Your task to perform on an android device: move an email to a new category in the gmail app Image 0: 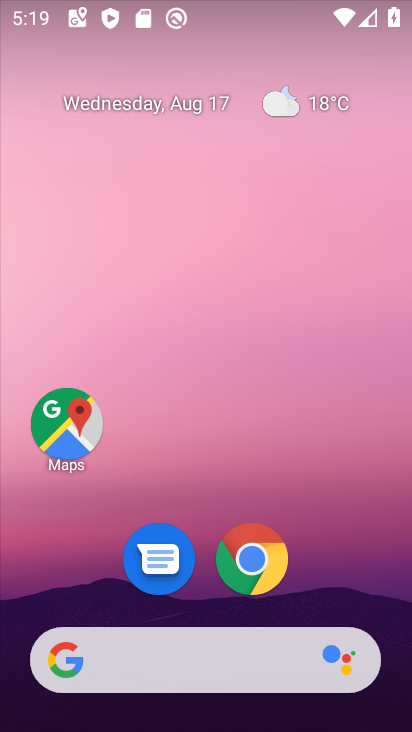
Step 0: drag from (181, 656) to (175, 118)
Your task to perform on an android device: move an email to a new category in the gmail app Image 1: 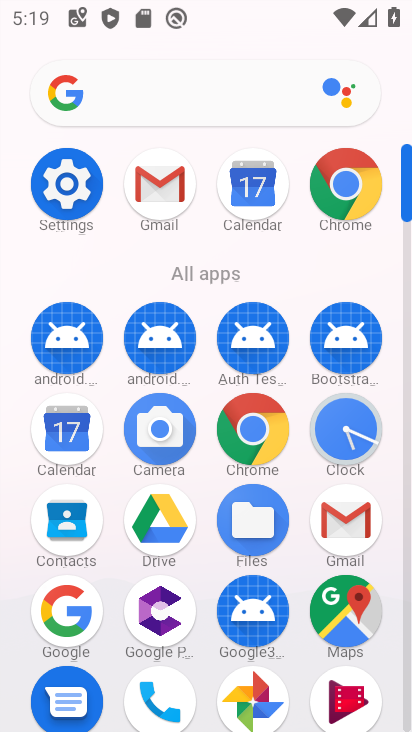
Step 1: click (338, 533)
Your task to perform on an android device: move an email to a new category in the gmail app Image 2: 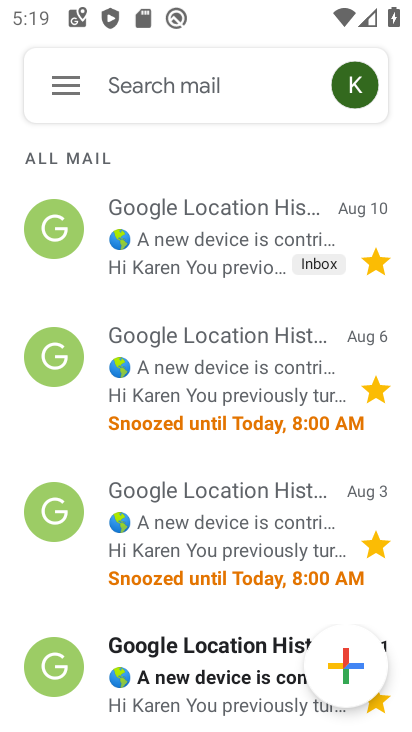
Step 2: click (390, 533)
Your task to perform on an android device: move an email to a new category in the gmail app Image 3: 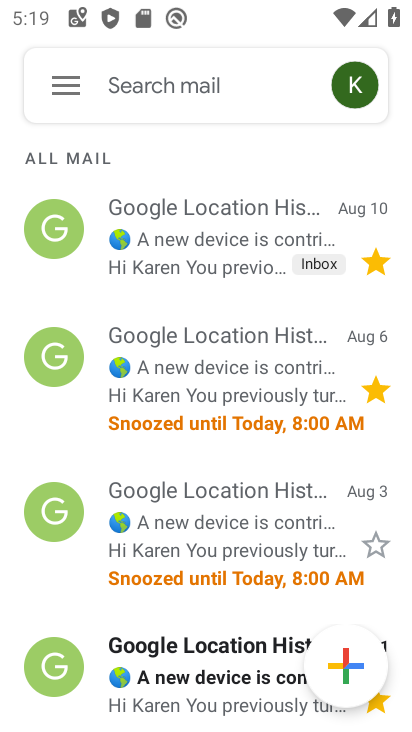
Step 3: click (62, 220)
Your task to perform on an android device: move an email to a new category in the gmail app Image 4: 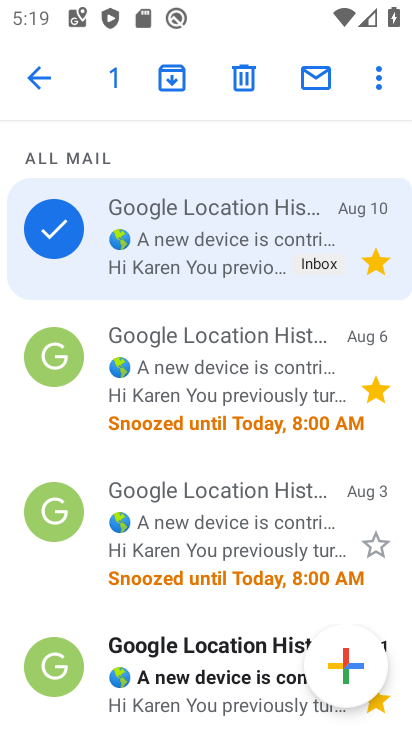
Step 4: click (376, 72)
Your task to perform on an android device: move an email to a new category in the gmail app Image 5: 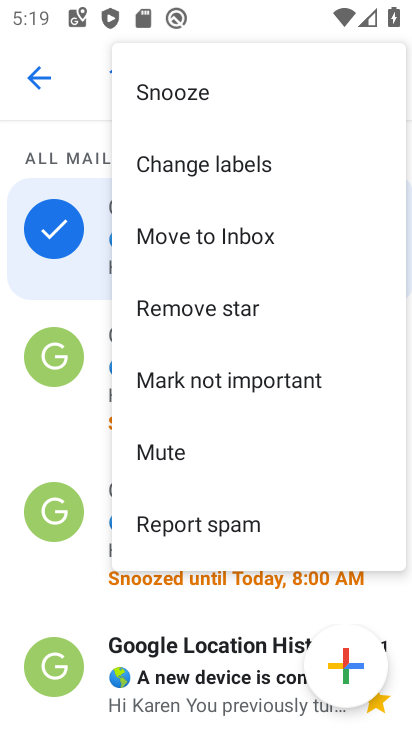
Step 5: click (223, 159)
Your task to perform on an android device: move an email to a new category in the gmail app Image 6: 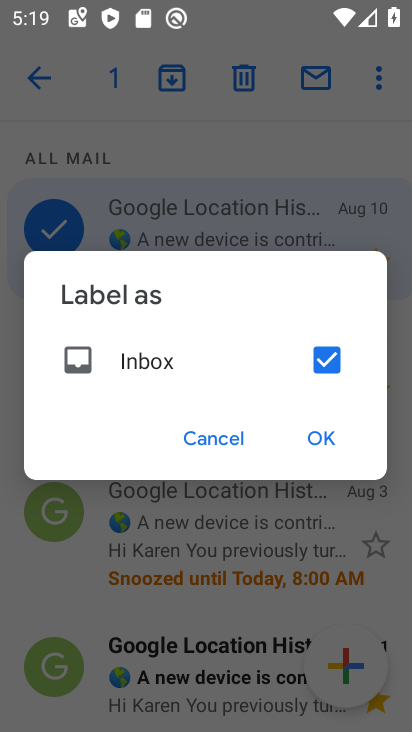
Step 6: click (325, 367)
Your task to perform on an android device: move an email to a new category in the gmail app Image 7: 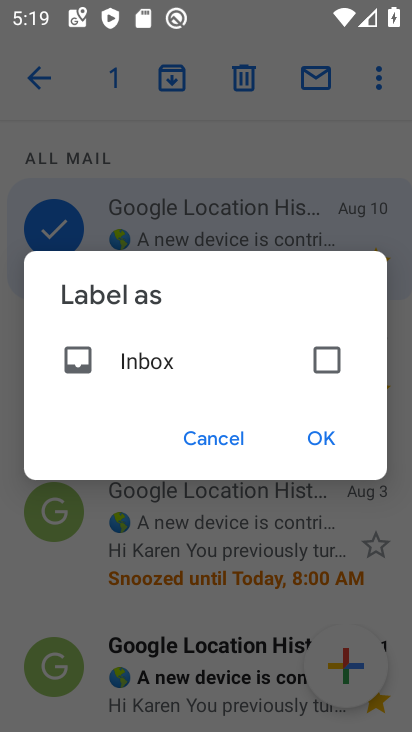
Step 7: click (316, 444)
Your task to perform on an android device: move an email to a new category in the gmail app Image 8: 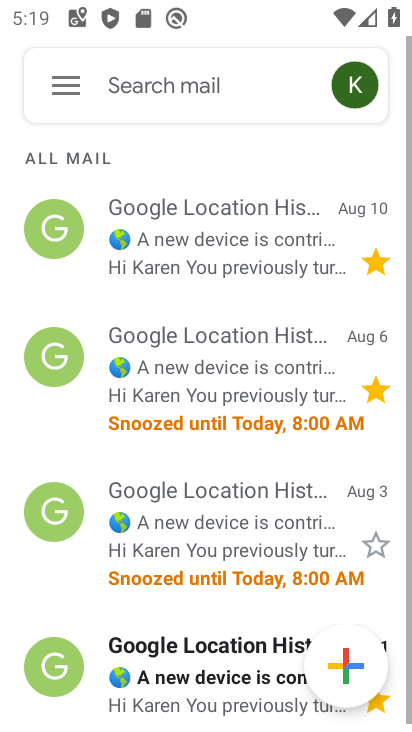
Step 8: task complete